Your task to perform on an android device: open sync settings in chrome Image 0: 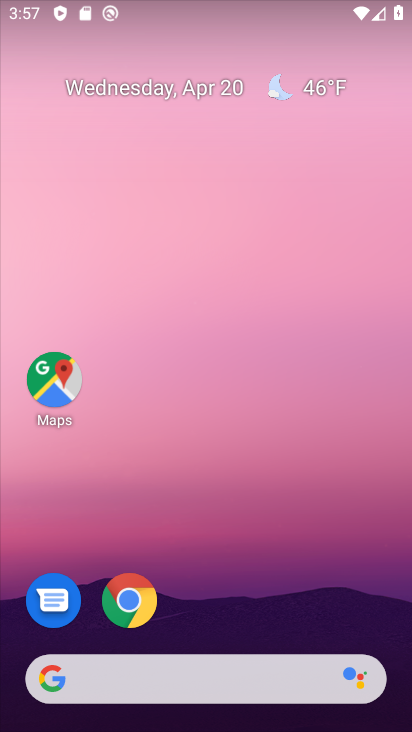
Step 0: click (128, 601)
Your task to perform on an android device: open sync settings in chrome Image 1: 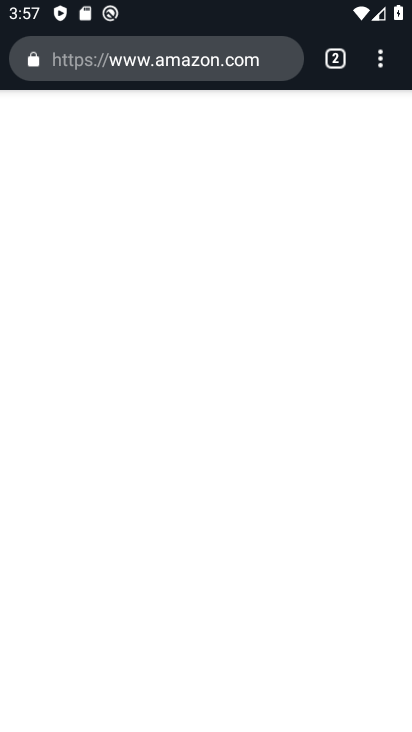
Step 1: click (380, 67)
Your task to perform on an android device: open sync settings in chrome Image 2: 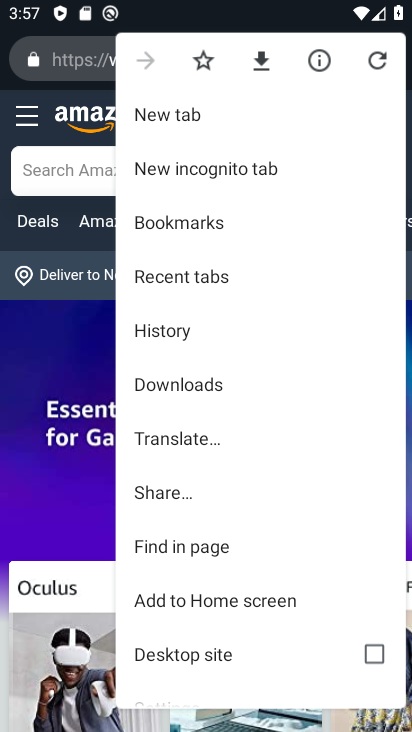
Step 2: drag from (234, 602) to (289, 301)
Your task to perform on an android device: open sync settings in chrome Image 3: 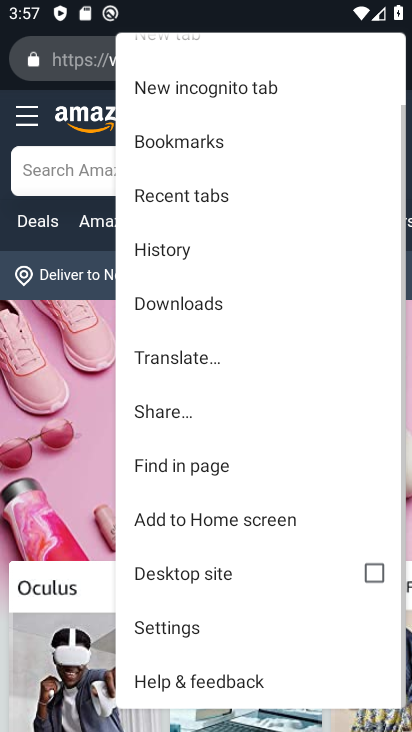
Step 3: click (188, 630)
Your task to perform on an android device: open sync settings in chrome Image 4: 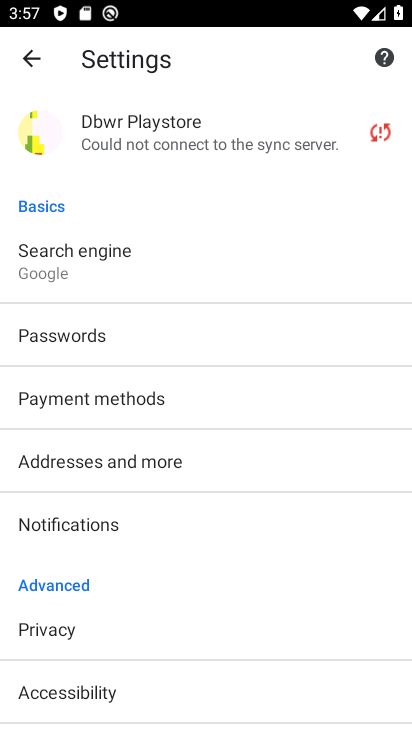
Step 4: drag from (198, 609) to (231, 197)
Your task to perform on an android device: open sync settings in chrome Image 5: 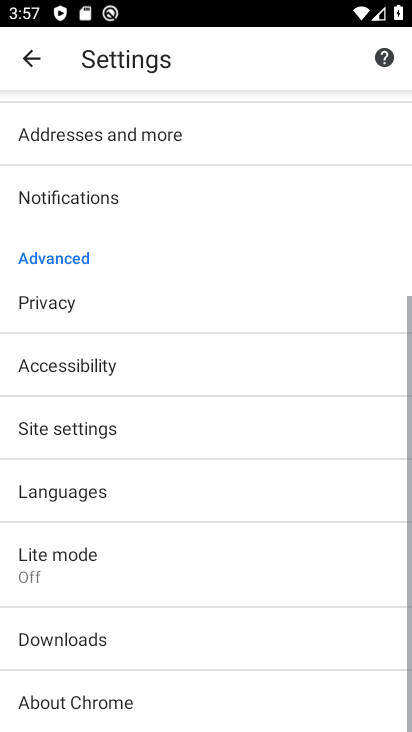
Step 5: click (122, 421)
Your task to perform on an android device: open sync settings in chrome Image 6: 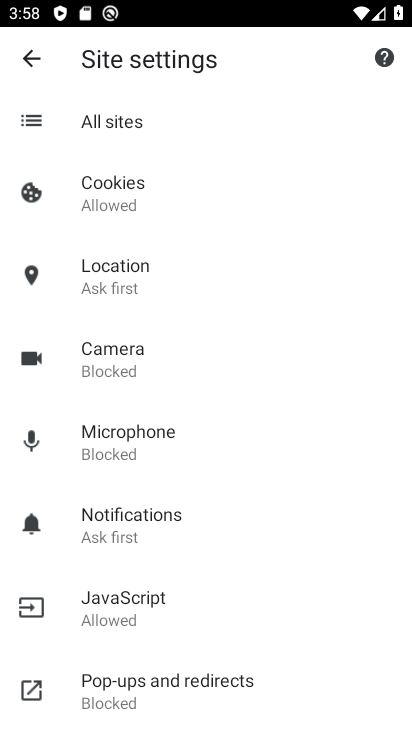
Step 6: drag from (209, 635) to (239, 205)
Your task to perform on an android device: open sync settings in chrome Image 7: 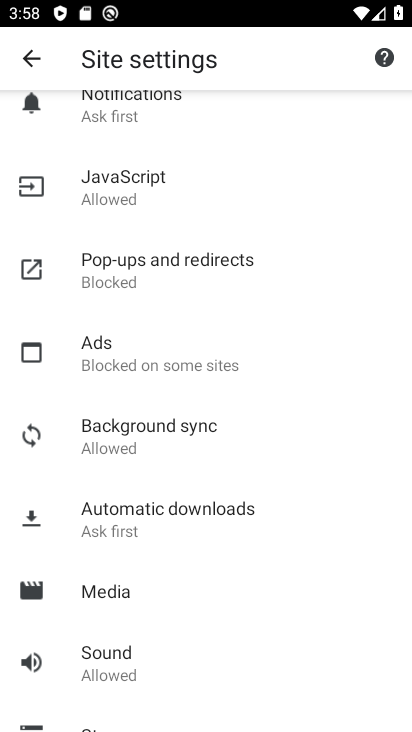
Step 7: drag from (180, 582) to (174, 389)
Your task to perform on an android device: open sync settings in chrome Image 8: 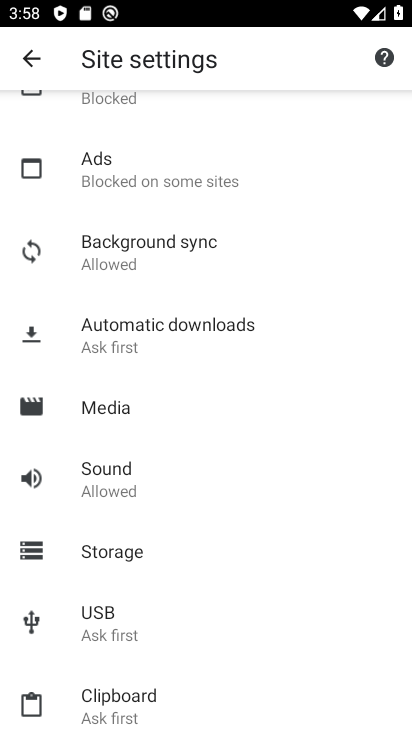
Step 8: click (154, 257)
Your task to perform on an android device: open sync settings in chrome Image 9: 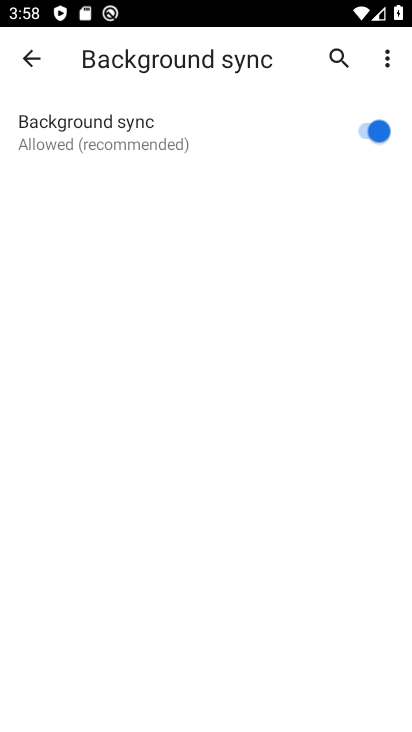
Step 9: task complete